Your task to perform on an android device: Open battery settings Image 0: 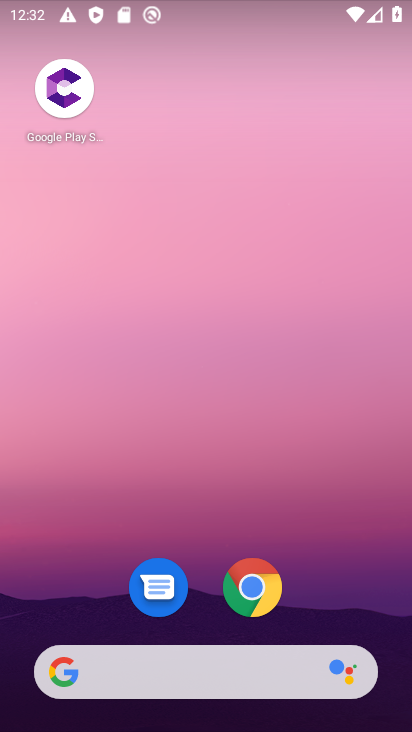
Step 0: drag from (345, 508) to (358, 6)
Your task to perform on an android device: Open battery settings Image 1: 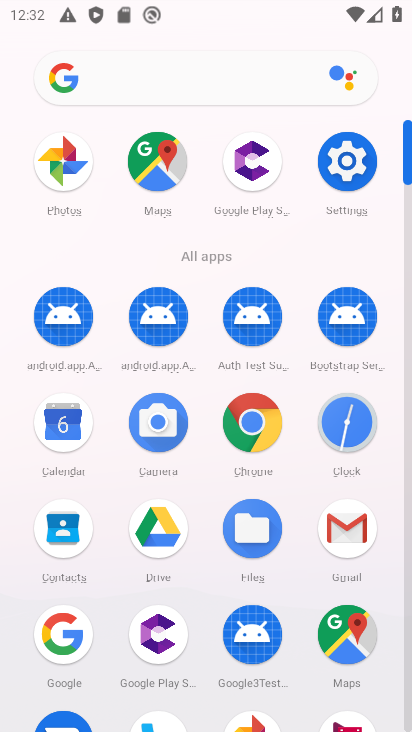
Step 1: click (349, 182)
Your task to perform on an android device: Open battery settings Image 2: 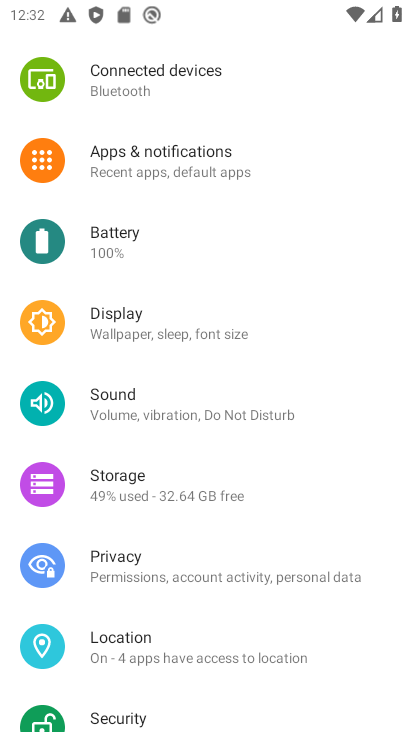
Step 2: click (109, 241)
Your task to perform on an android device: Open battery settings Image 3: 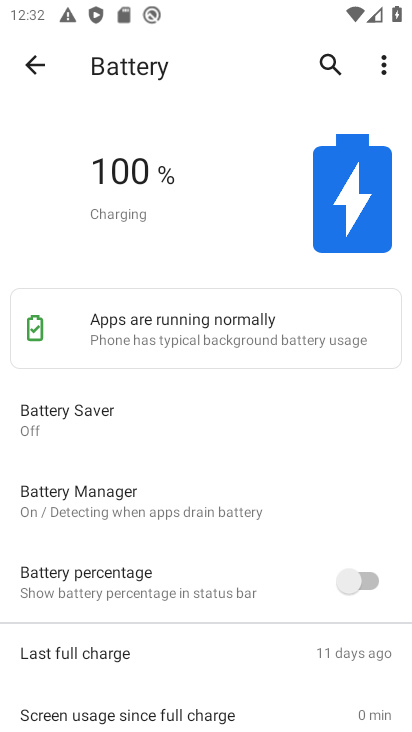
Step 3: task complete